Your task to perform on an android device: Go to Android settings Image 0: 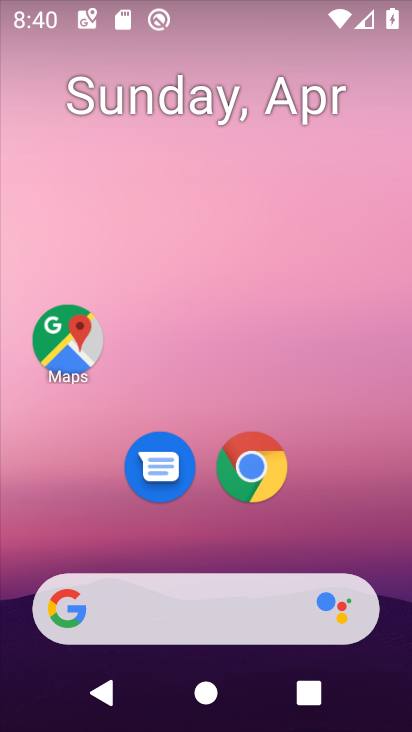
Step 0: drag from (310, 542) to (337, 21)
Your task to perform on an android device: Go to Android settings Image 1: 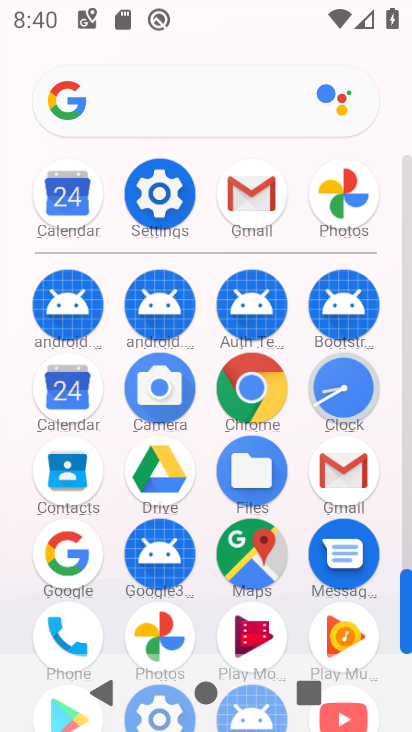
Step 1: click (172, 187)
Your task to perform on an android device: Go to Android settings Image 2: 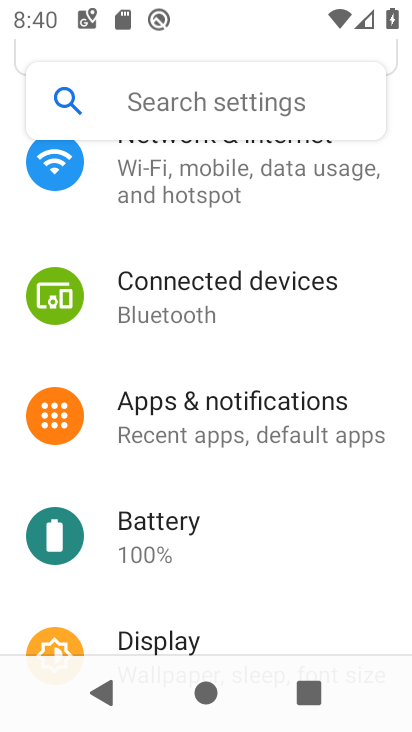
Step 2: drag from (224, 598) to (312, 322)
Your task to perform on an android device: Go to Android settings Image 3: 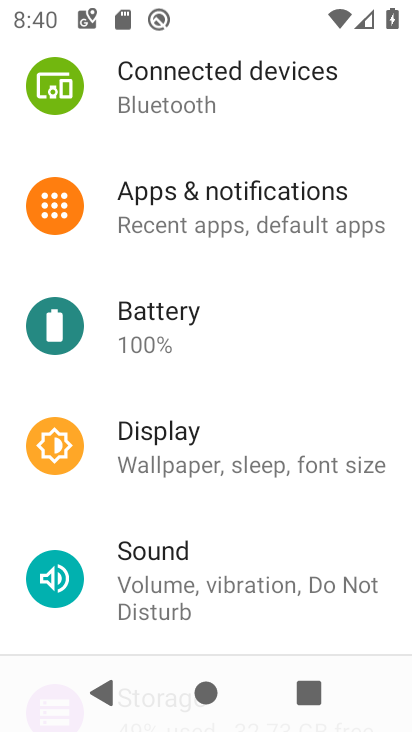
Step 3: drag from (248, 517) to (267, 334)
Your task to perform on an android device: Go to Android settings Image 4: 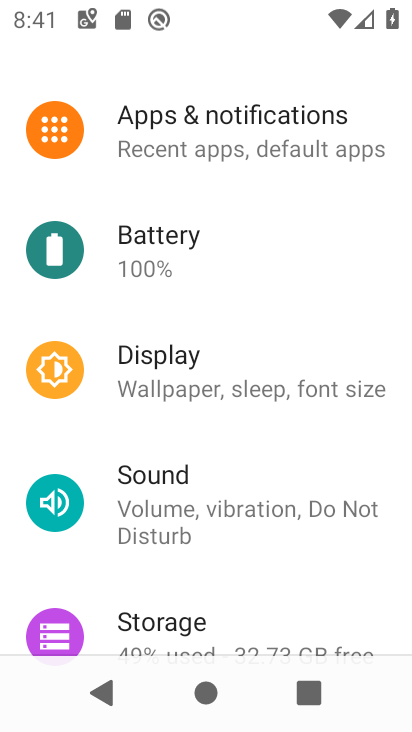
Step 4: drag from (263, 457) to (282, 340)
Your task to perform on an android device: Go to Android settings Image 5: 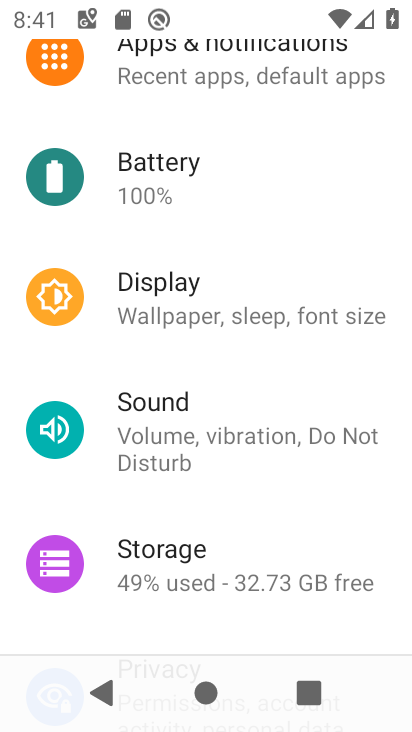
Step 5: drag from (272, 501) to (293, 373)
Your task to perform on an android device: Go to Android settings Image 6: 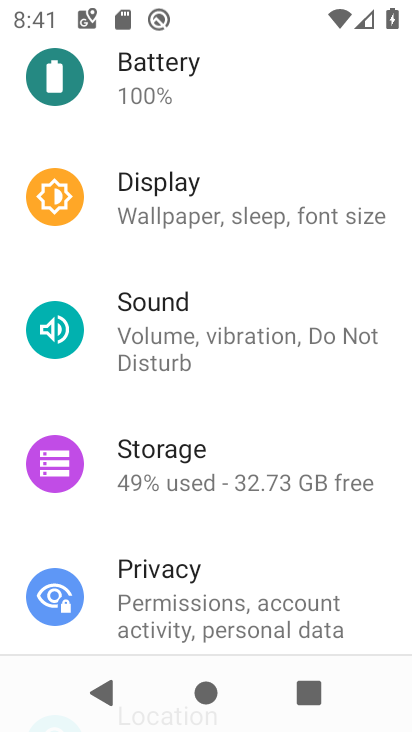
Step 6: drag from (242, 526) to (250, 384)
Your task to perform on an android device: Go to Android settings Image 7: 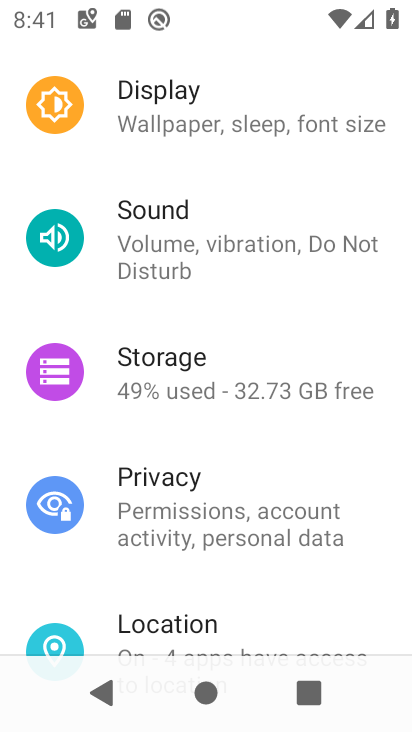
Step 7: drag from (220, 492) to (229, 381)
Your task to perform on an android device: Go to Android settings Image 8: 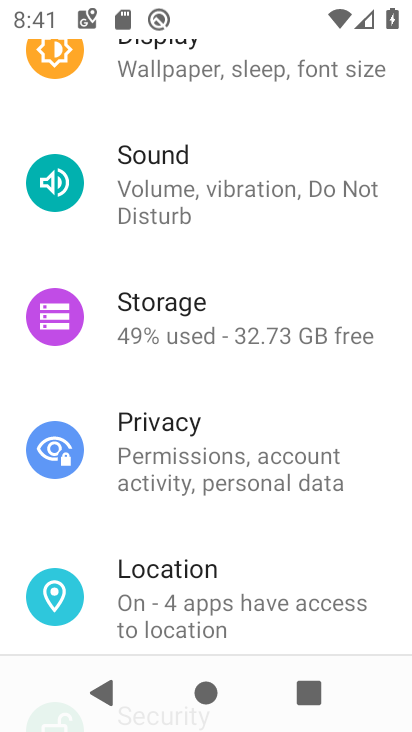
Step 8: drag from (214, 475) to (219, 371)
Your task to perform on an android device: Go to Android settings Image 9: 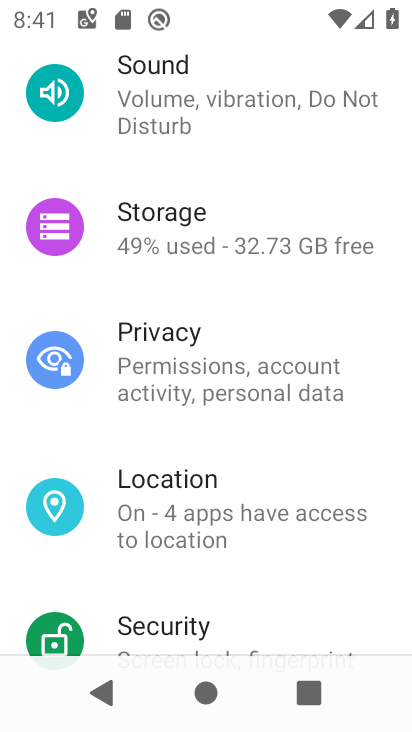
Step 9: drag from (196, 472) to (218, 357)
Your task to perform on an android device: Go to Android settings Image 10: 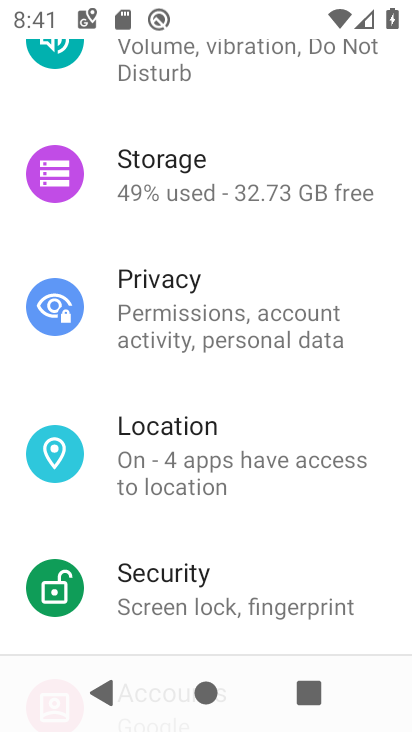
Step 10: drag from (219, 431) to (219, 313)
Your task to perform on an android device: Go to Android settings Image 11: 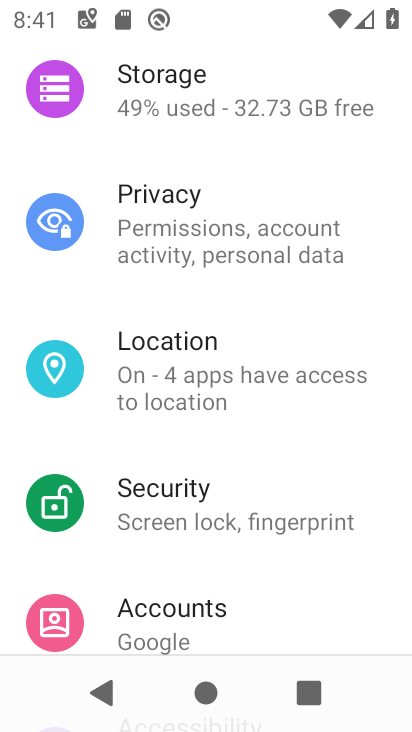
Step 11: drag from (204, 464) to (210, 291)
Your task to perform on an android device: Go to Android settings Image 12: 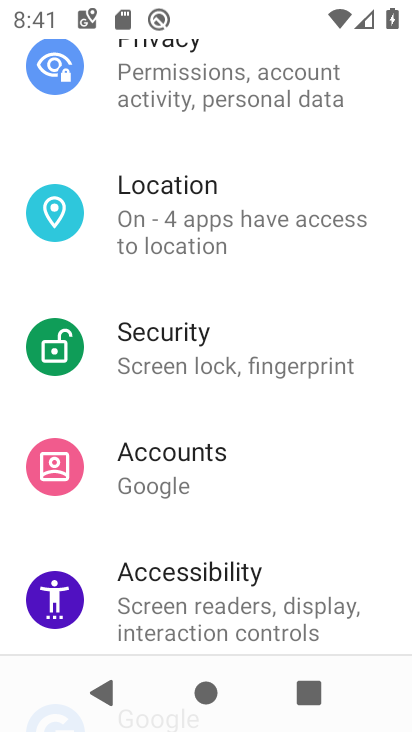
Step 12: drag from (215, 427) to (218, 306)
Your task to perform on an android device: Go to Android settings Image 13: 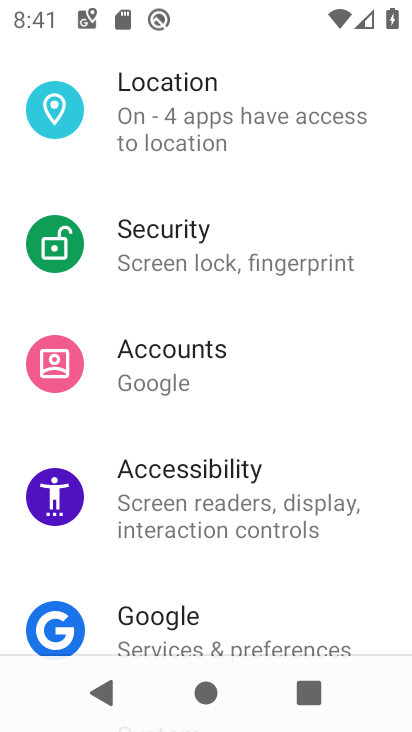
Step 13: drag from (223, 455) to (233, 324)
Your task to perform on an android device: Go to Android settings Image 14: 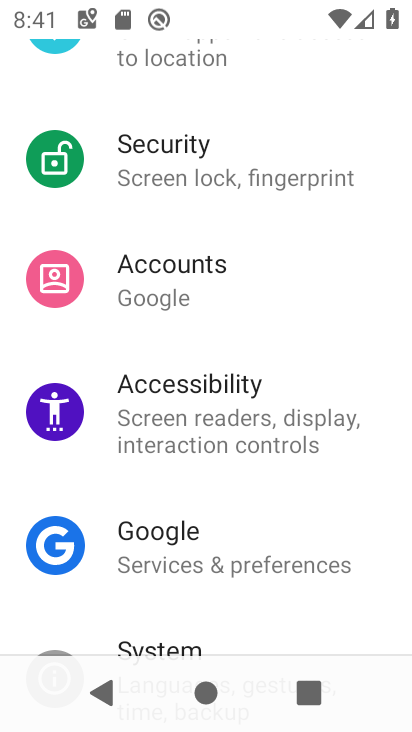
Step 14: drag from (214, 490) to (221, 363)
Your task to perform on an android device: Go to Android settings Image 15: 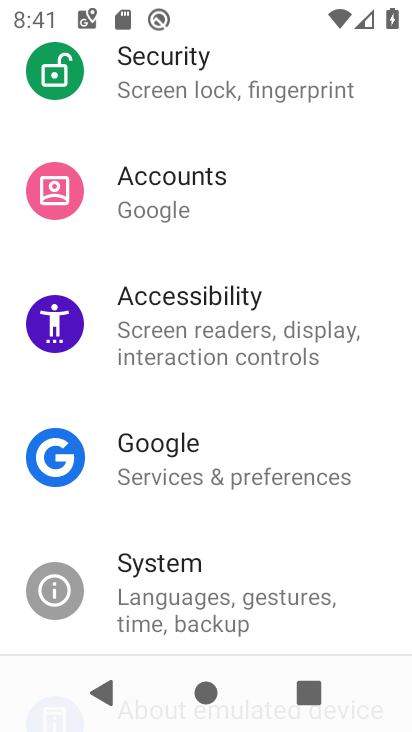
Step 15: click (237, 596)
Your task to perform on an android device: Go to Android settings Image 16: 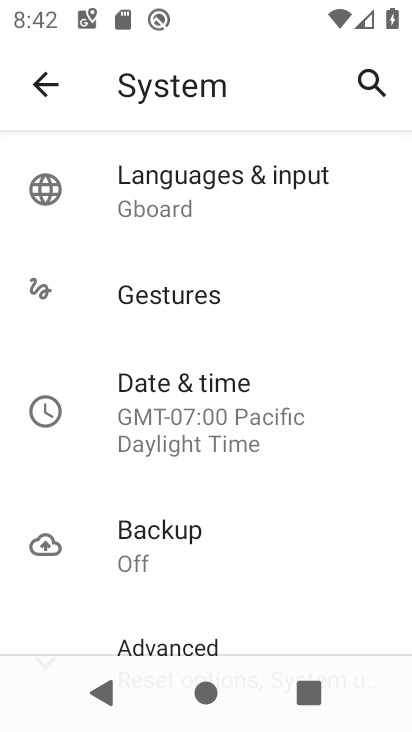
Step 16: task complete